Your task to perform on an android device: Open accessibility settings Image 0: 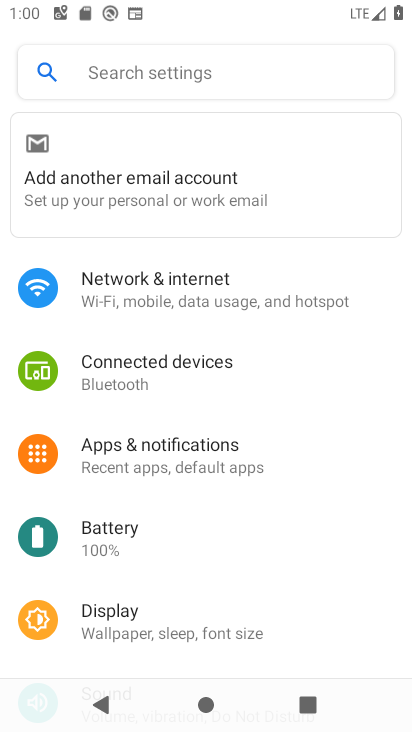
Step 0: press home button
Your task to perform on an android device: Open accessibility settings Image 1: 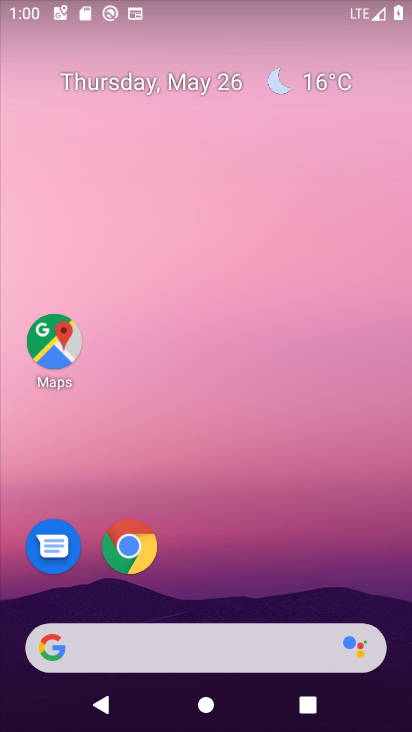
Step 1: drag from (149, 506) to (169, 253)
Your task to perform on an android device: Open accessibility settings Image 2: 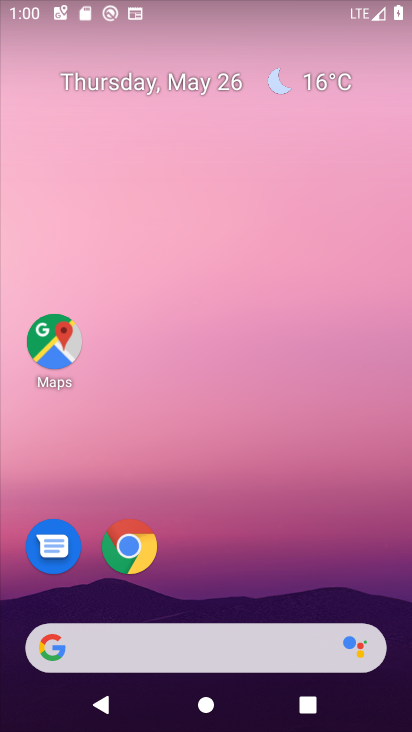
Step 2: drag from (207, 585) to (273, 217)
Your task to perform on an android device: Open accessibility settings Image 3: 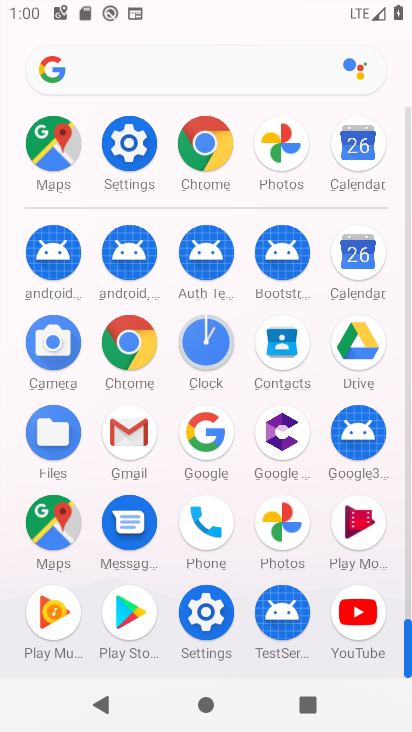
Step 3: click (205, 611)
Your task to perform on an android device: Open accessibility settings Image 4: 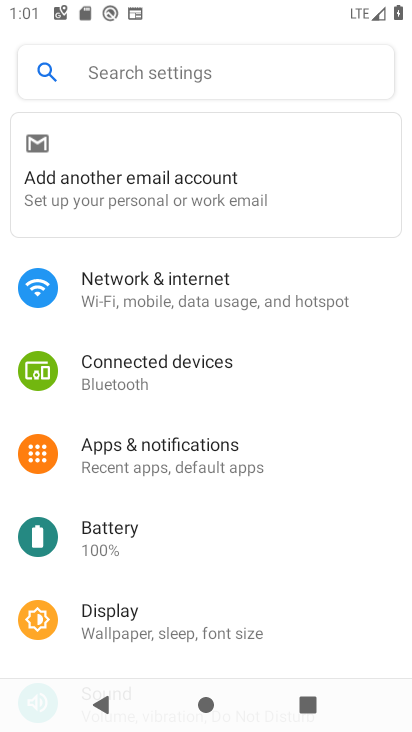
Step 4: drag from (182, 542) to (247, 227)
Your task to perform on an android device: Open accessibility settings Image 5: 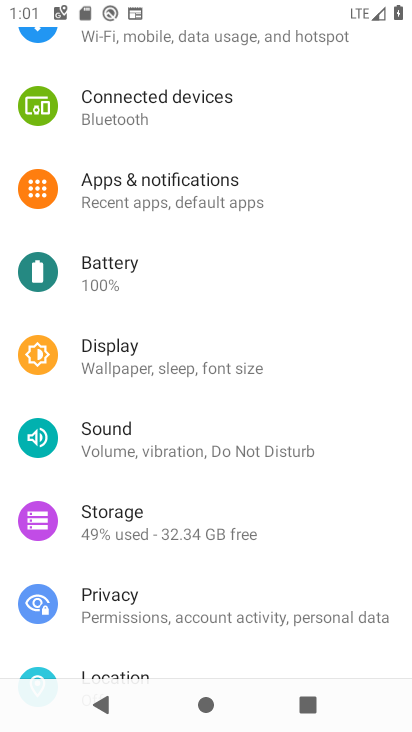
Step 5: drag from (184, 566) to (262, 253)
Your task to perform on an android device: Open accessibility settings Image 6: 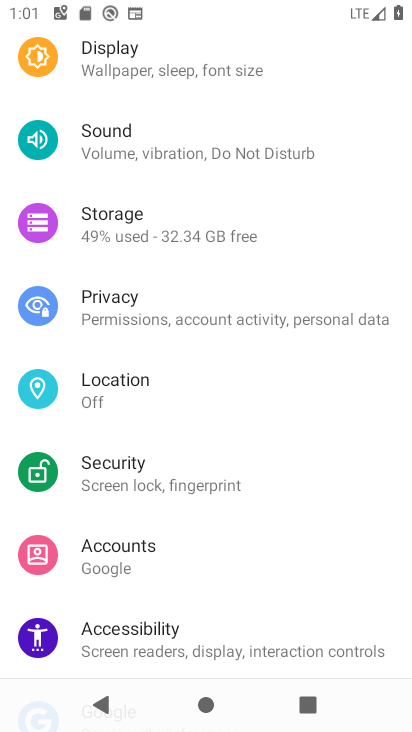
Step 6: click (127, 640)
Your task to perform on an android device: Open accessibility settings Image 7: 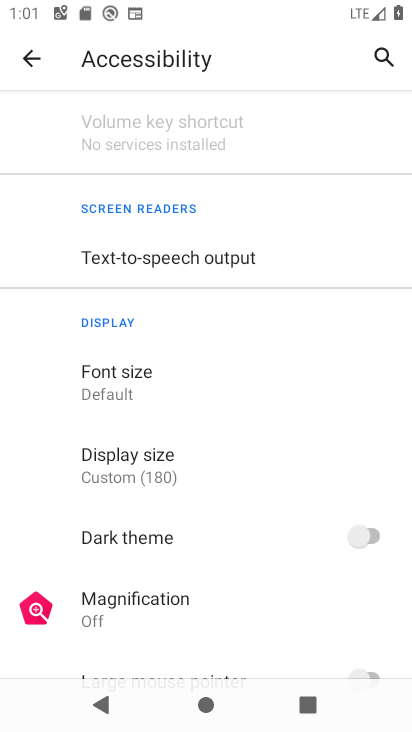
Step 7: task complete